Your task to perform on an android device: Open calendar and show me the third week of next month Image 0: 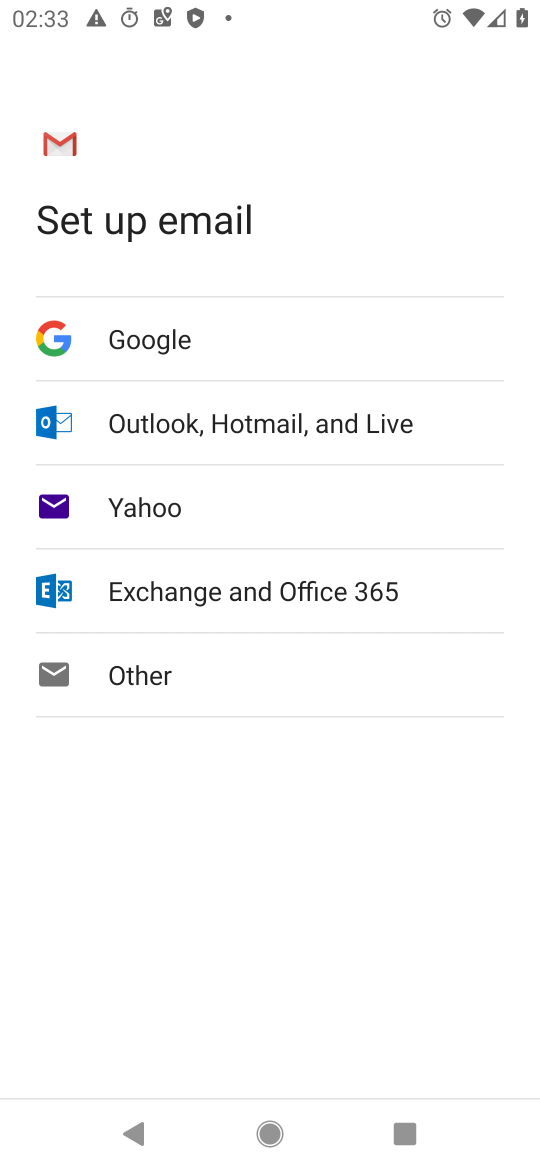
Step 0: press home button
Your task to perform on an android device: Open calendar and show me the third week of next month Image 1: 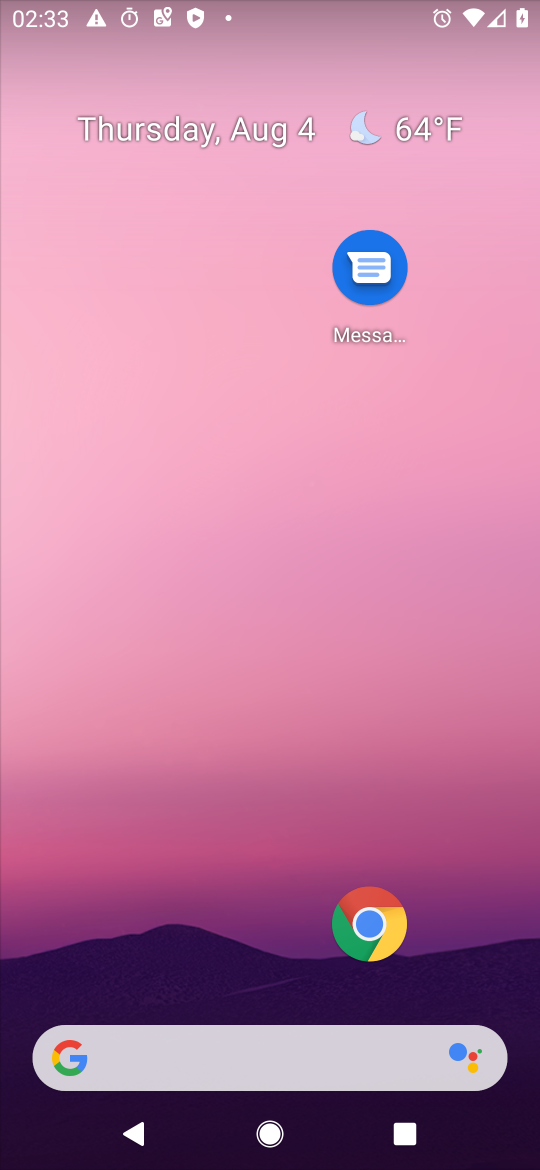
Step 1: drag from (146, 808) to (304, 0)
Your task to perform on an android device: Open calendar and show me the third week of next month Image 2: 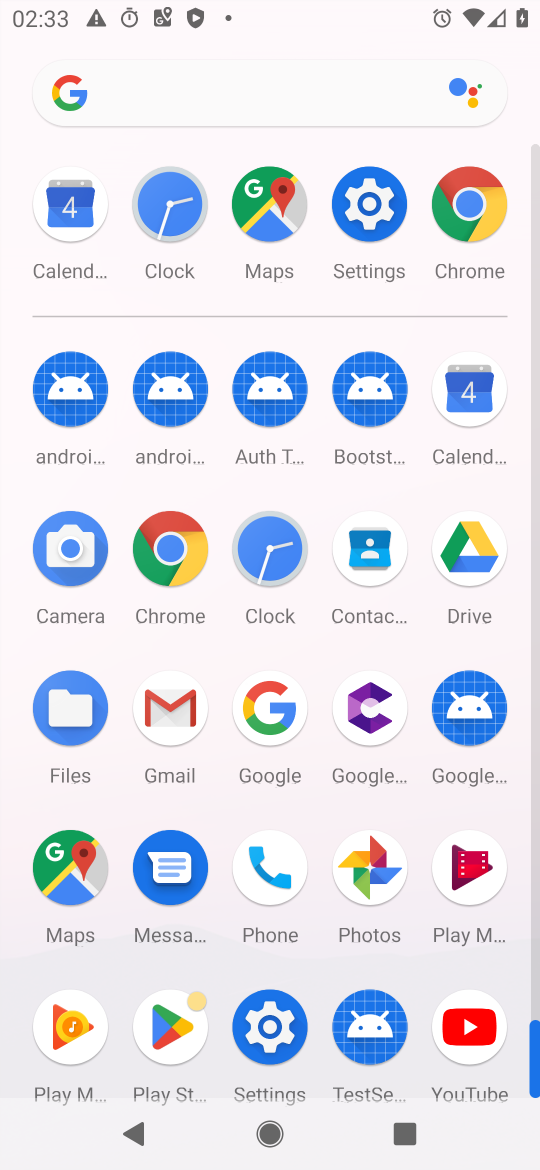
Step 2: click (471, 414)
Your task to perform on an android device: Open calendar and show me the third week of next month Image 3: 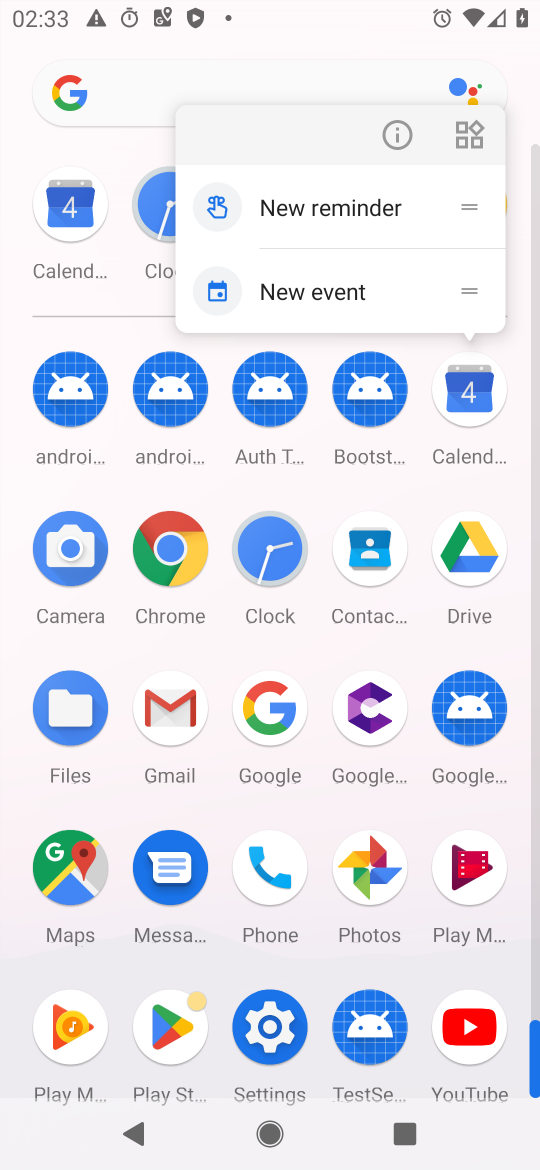
Step 3: click (462, 389)
Your task to perform on an android device: Open calendar and show me the third week of next month Image 4: 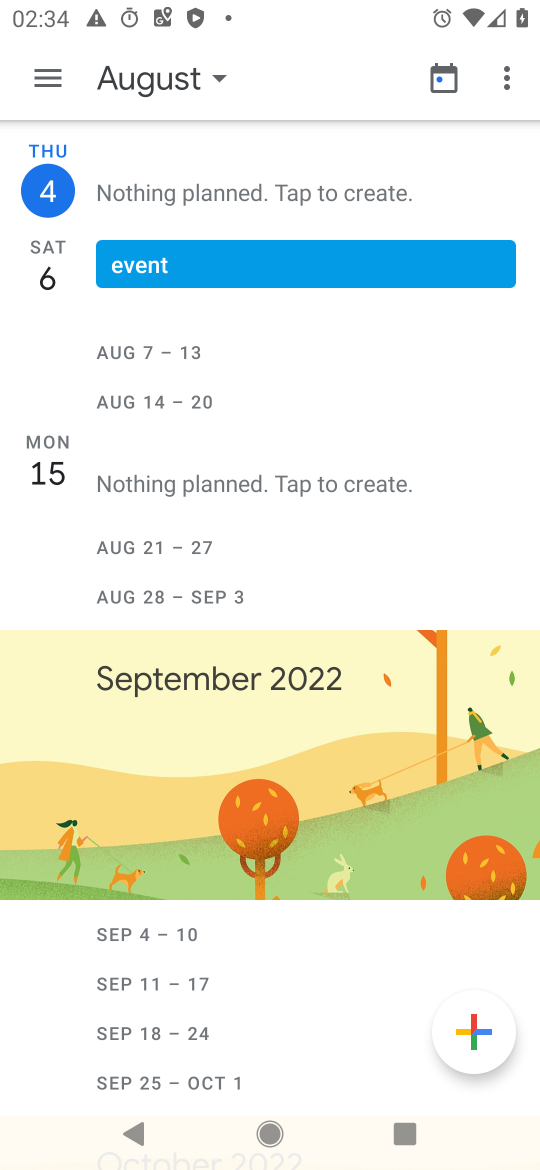
Step 4: click (212, 76)
Your task to perform on an android device: Open calendar and show me the third week of next month Image 5: 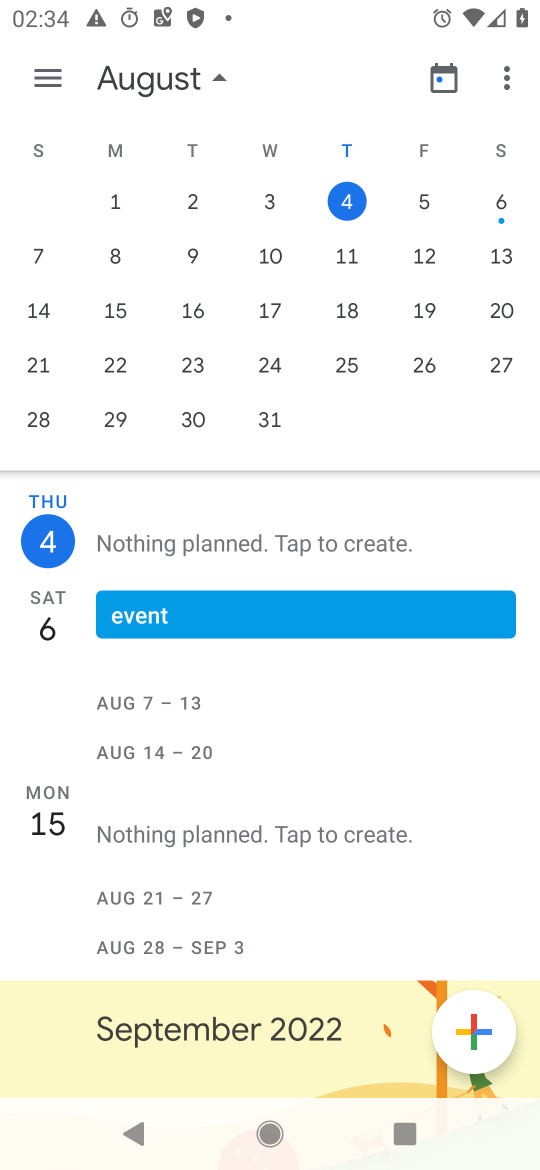
Step 5: click (92, 293)
Your task to perform on an android device: Open calendar and show me the third week of next month Image 6: 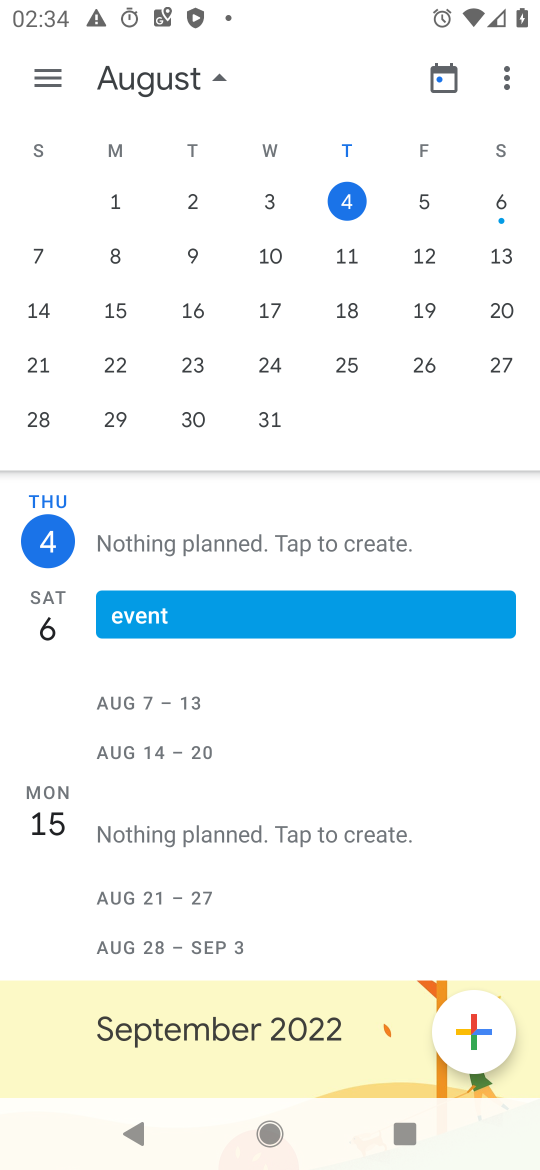
Step 6: drag from (490, 241) to (19, 230)
Your task to perform on an android device: Open calendar and show me the third week of next month Image 7: 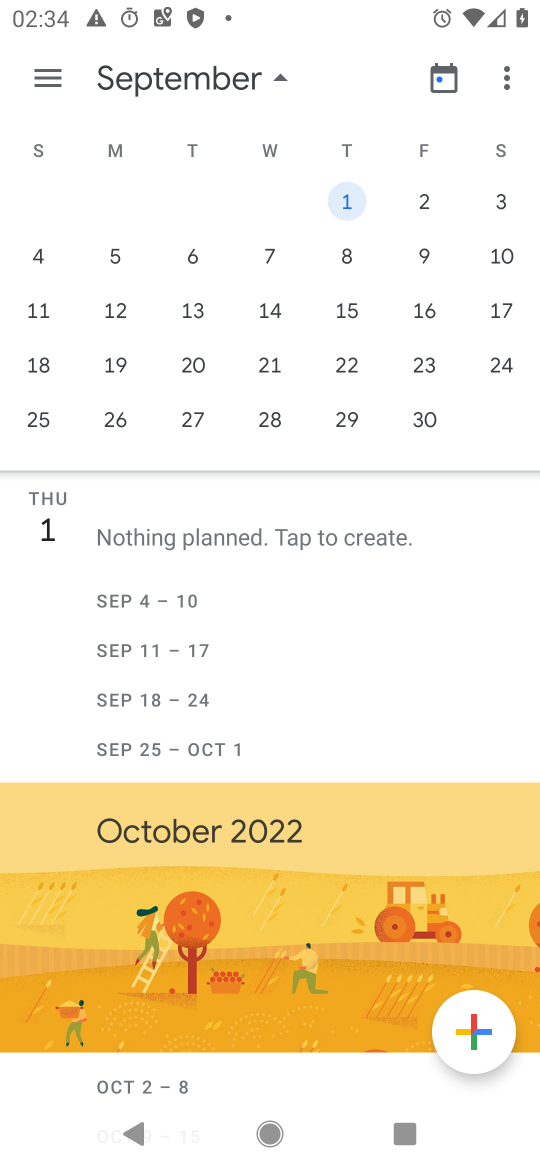
Step 7: drag from (433, 239) to (50, 218)
Your task to perform on an android device: Open calendar and show me the third week of next month Image 8: 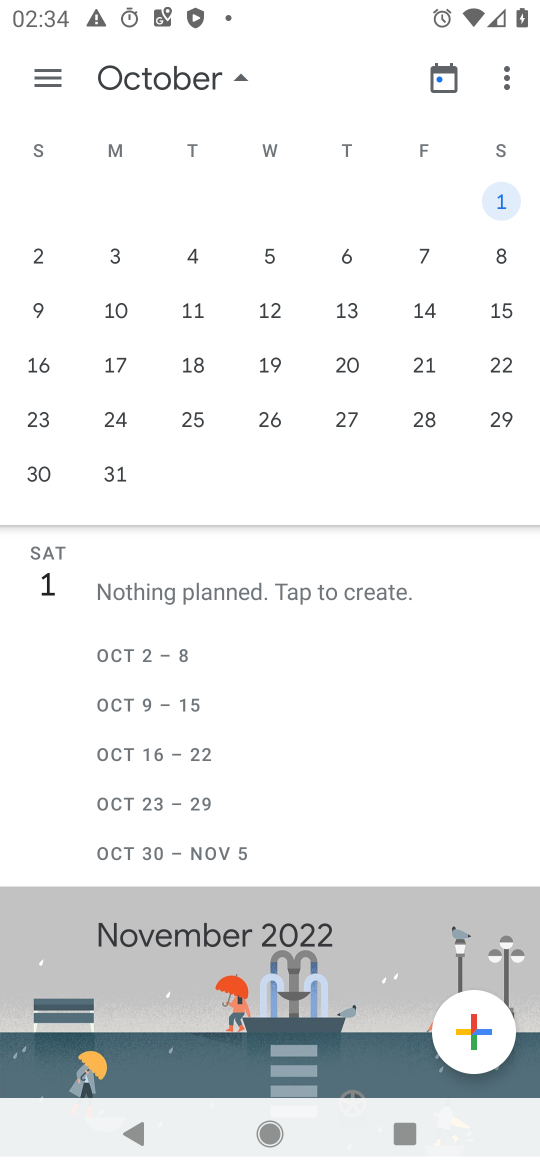
Step 8: drag from (21, 239) to (361, 238)
Your task to perform on an android device: Open calendar and show me the third week of next month Image 9: 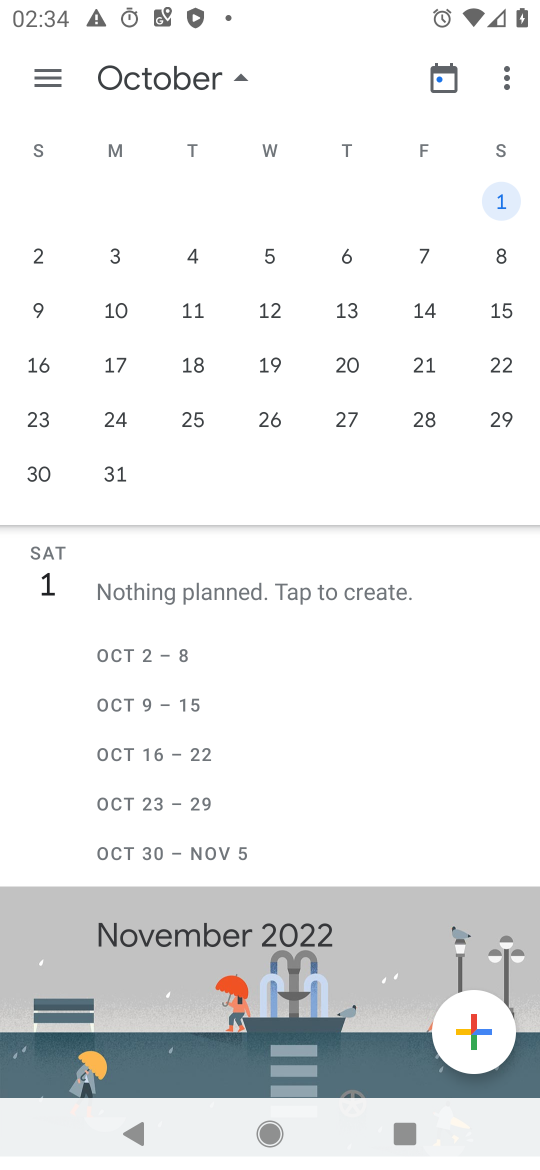
Step 9: drag from (25, 189) to (516, 198)
Your task to perform on an android device: Open calendar and show me the third week of next month Image 10: 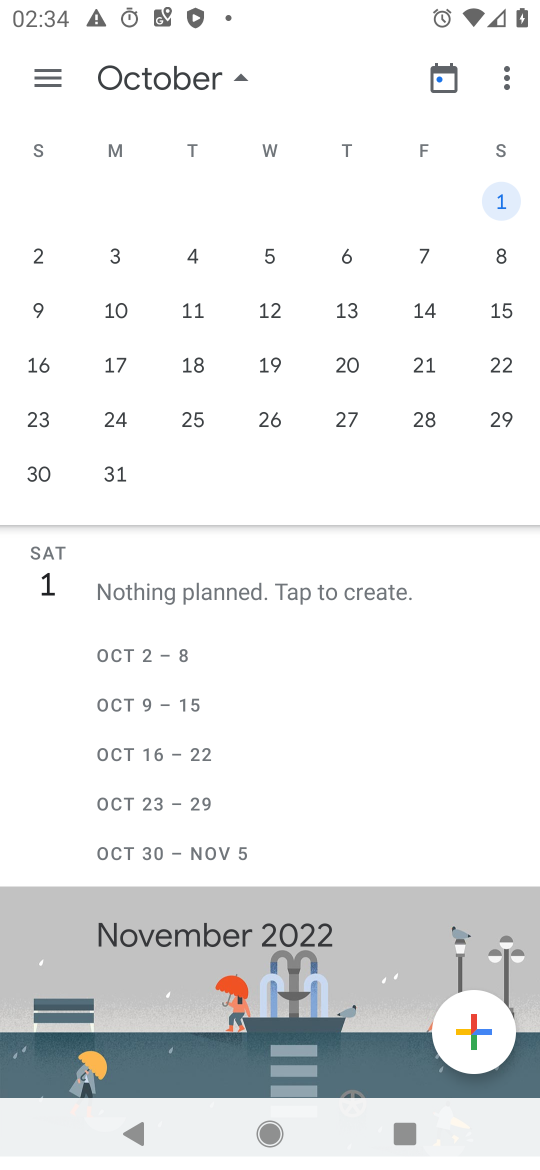
Step 10: drag from (67, 390) to (536, 328)
Your task to perform on an android device: Open calendar and show me the third week of next month Image 11: 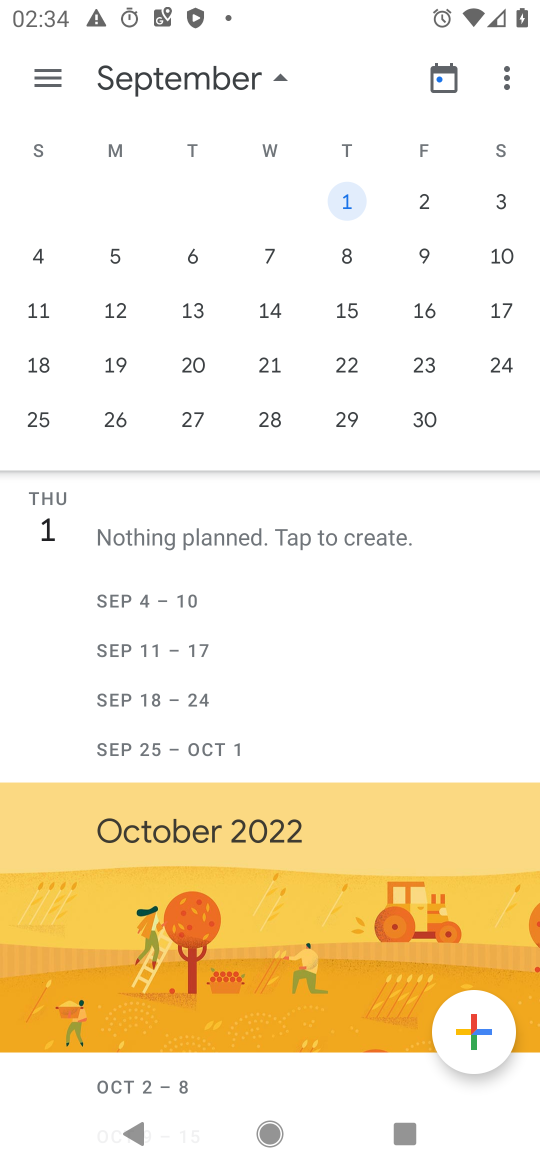
Step 11: click (117, 315)
Your task to perform on an android device: Open calendar and show me the third week of next month Image 12: 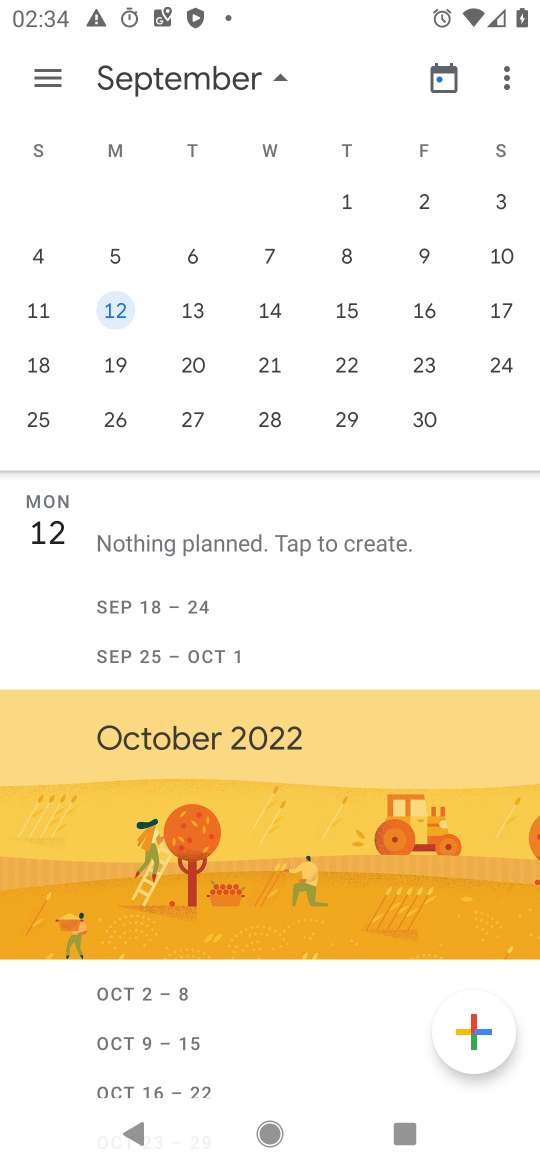
Step 12: task complete